Your task to perform on an android device: Search for Italian restaurants on Maps Image 0: 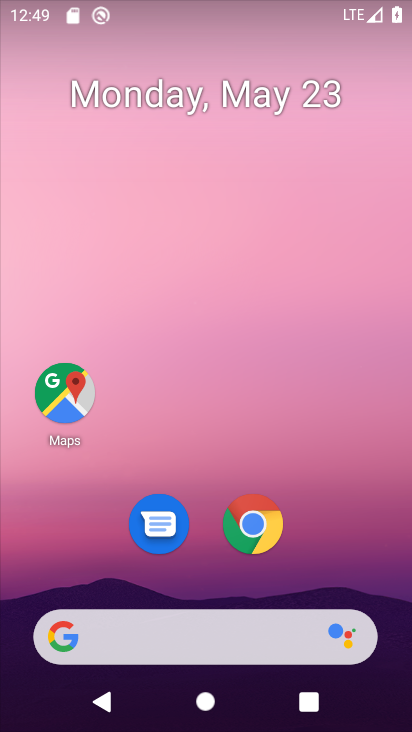
Step 0: click (63, 383)
Your task to perform on an android device: Search for Italian restaurants on Maps Image 1: 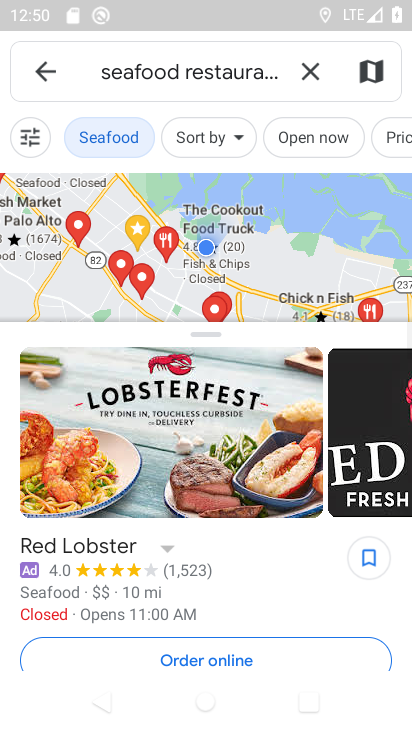
Step 1: click (39, 62)
Your task to perform on an android device: Search for Italian restaurants on Maps Image 2: 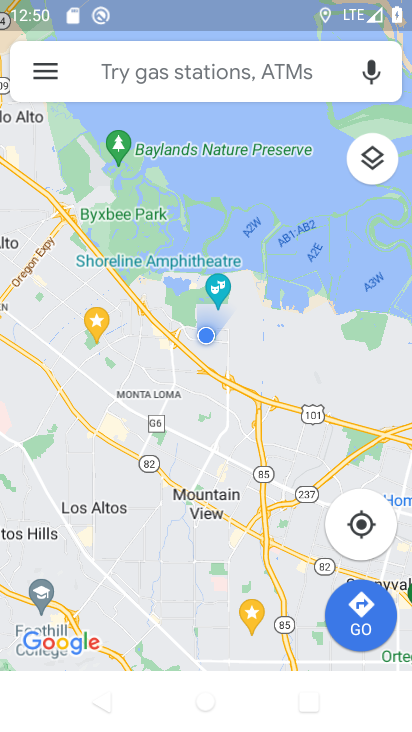
Step 2: click (47, 66)
Your task to perform on an android device: Search for Italian restaurants on Maps Image 3: 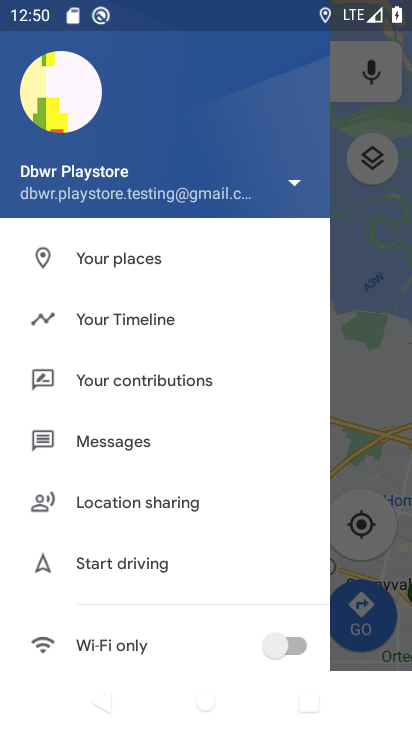
Step 3: click (384, 363)
Your task to perform on an android device: Search for Italian restaurants on Maps Image 4: 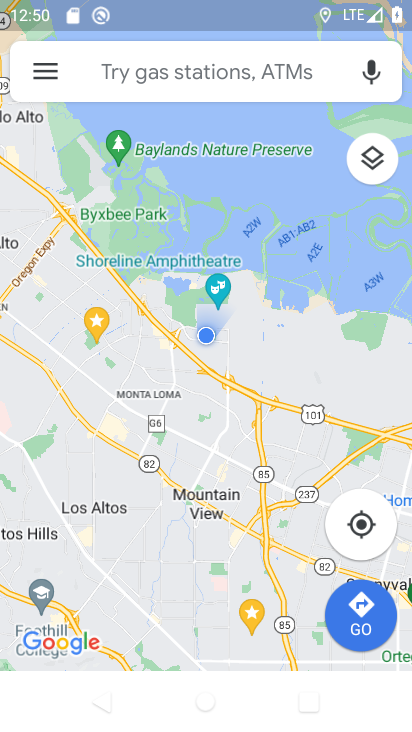
Step 4: click (198, 63)
Your task to perform on an android device: Search for Italian restaurants on Maps Image 5: 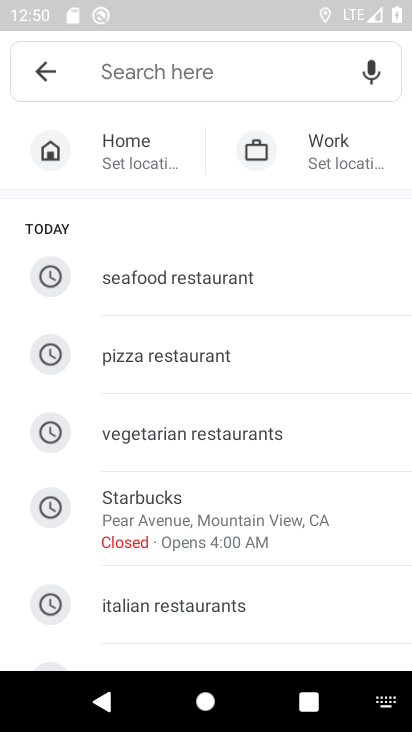
Step 5: click (219, 601)
Your task to perform on an android device: Search for Italian restaurants on Maps Image 6: 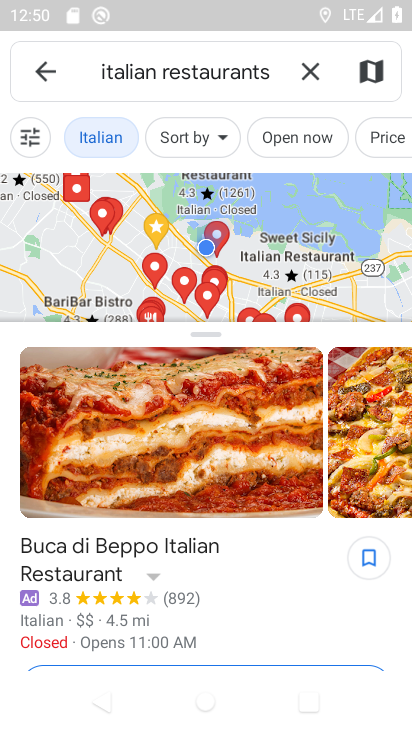
Step 6: task complete